Your task to perform on an android device: allow notifications from all sites in the chrome app Image 0: 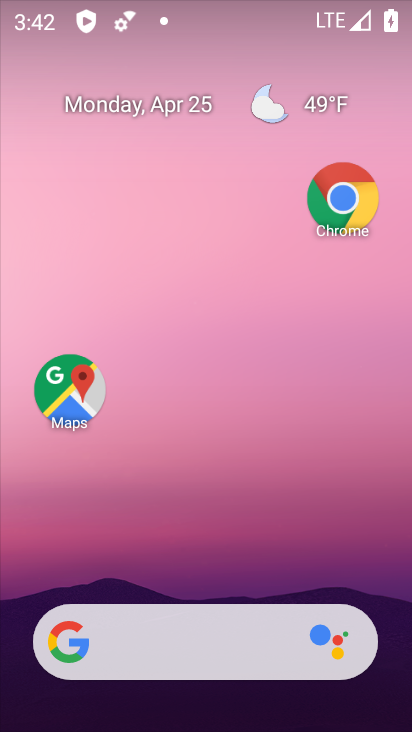
Step 0: drag from (191, 601) to (331, 141)
Your task to perform on an android device: allow notifications from all sites in the chrome app Image 1: 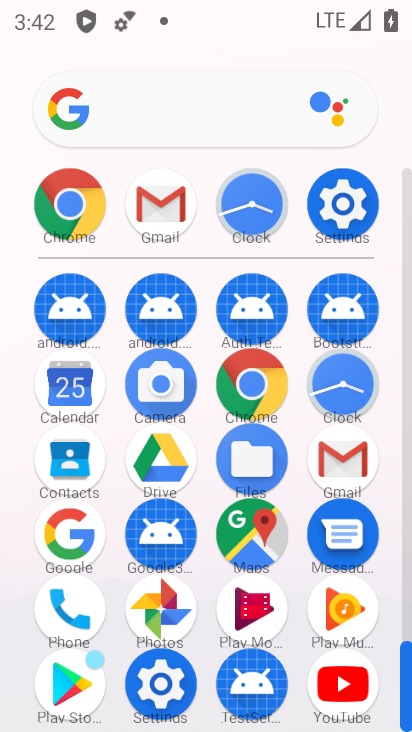
Step 1: click (78, 213)
Your task to perform on an android device: allow notifications from all sites in the chrome app Image 2: 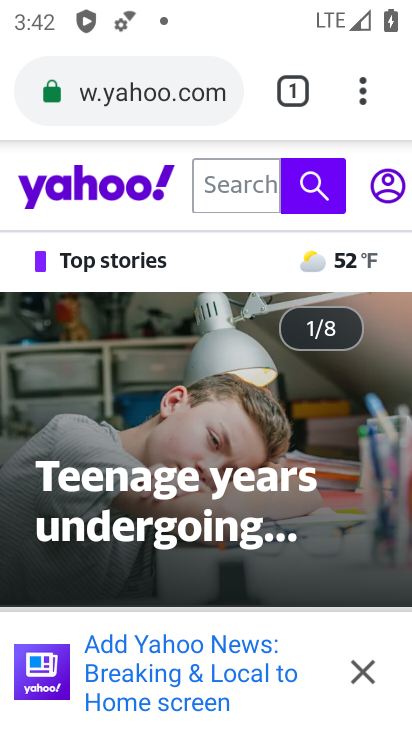
Step 2: drag from (363, 101) to (169, 568)
Your task to perform on an android device: allow notifications from all sites in the chrome app Image 3: 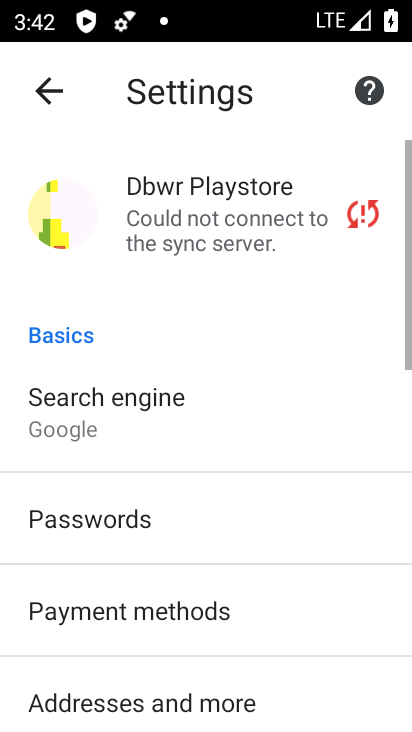
Step 3: drag from (122, 600) to (358, 216)
Your task to perform on an android device: allow notifications from all sites in the chrome app Image 4: 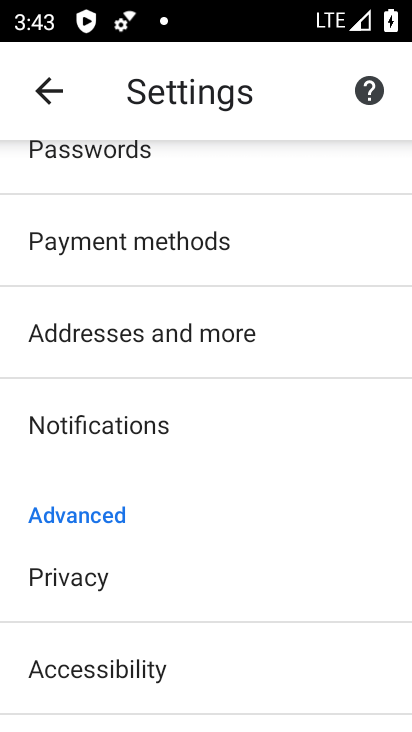
Step 4: drag from (116, 636) to (331, 140)
Your task to perform on an android device: allow notifications from all sites in the chrome app Image 5: 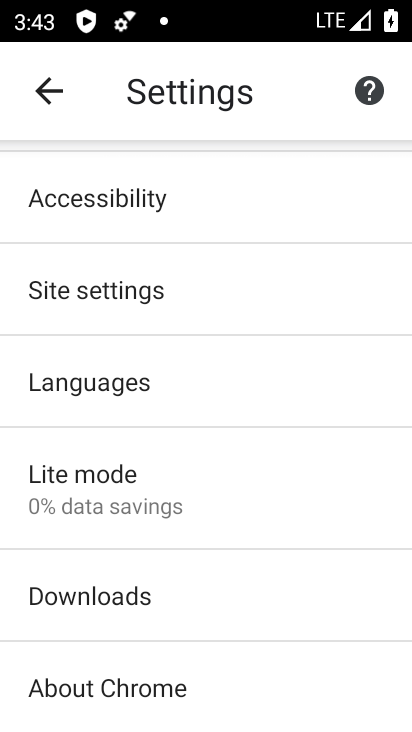
Step 5: click (135, 294)
Your task to perform on an android device: allow notifications from all sites in the chrome app Image 6: 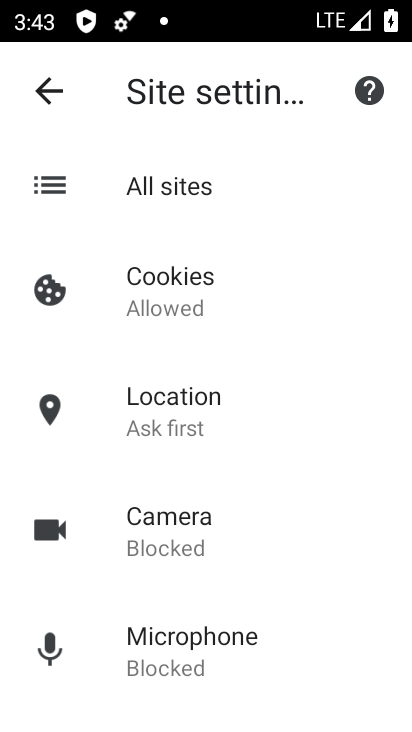
Step 6: drag from (214, 590) to (359, 159)
Your task to perform on an android device: allow notifications from all sites in the chrome app Image 7: 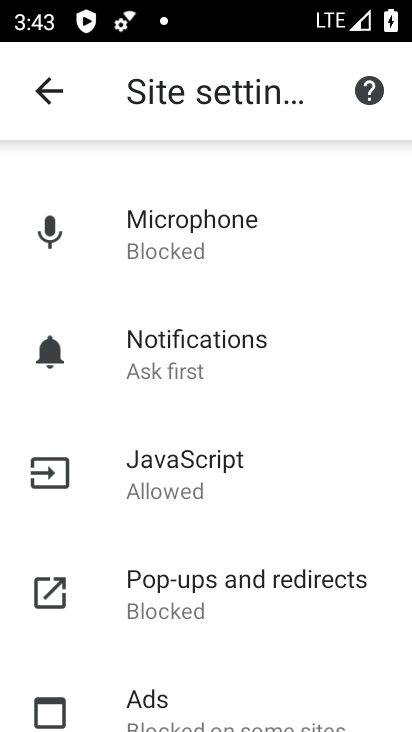
Step 7: click (191, 352)
Your task to perform on an android device: allow notifications from all sites in the chrome app Image 8: 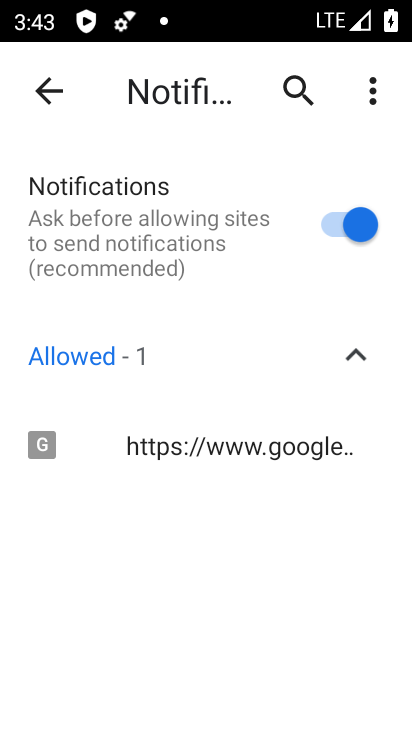
Step 8: task complete